Your task to perform on an android device: toggle notifications settings in the gmail app Image 0: 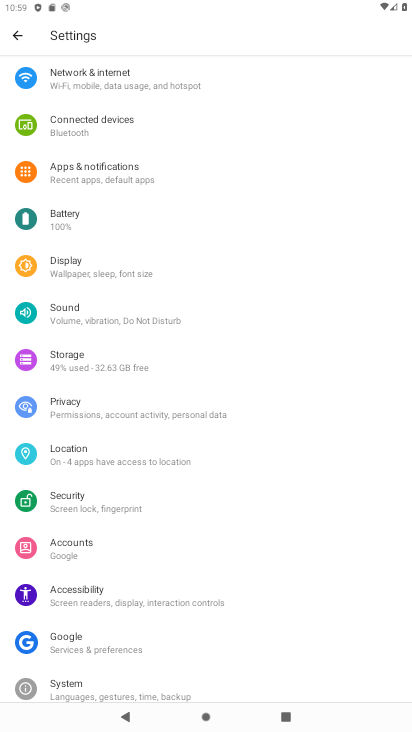
Step 0: press back button
Your task to perform on an android device: toggle notifications settings in the gmail app Image 1: 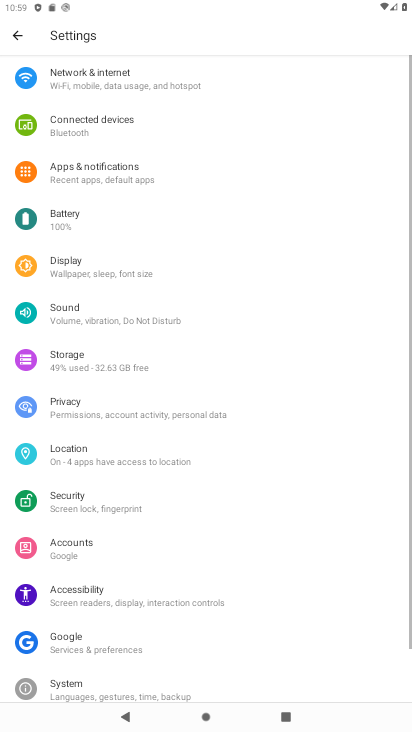
Step 1: press home button
Your task to perform on an android device: toggle notifications settings in the gmail app Image 2: 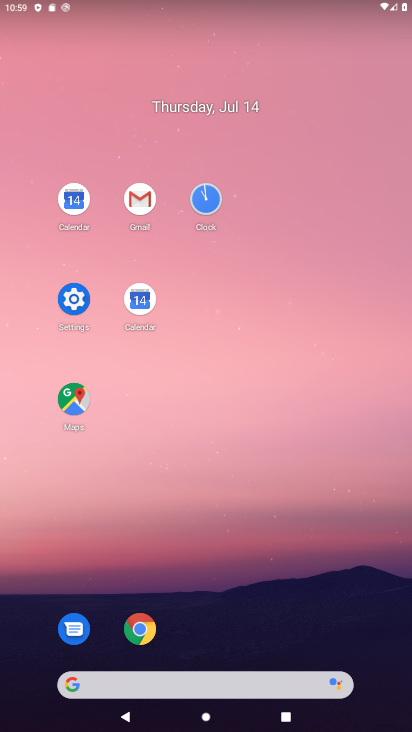
Step 2: click (147, 205)
Your task to perform on an android device: toggle notifications settings in the gmail app Image 3: 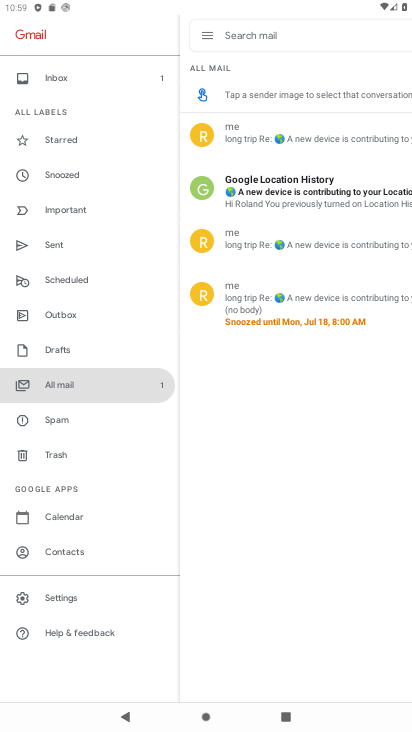
Step 3: click (103, 590)
Your task to perform on an android device: toggle notifications settings in the gmail app Image 4: 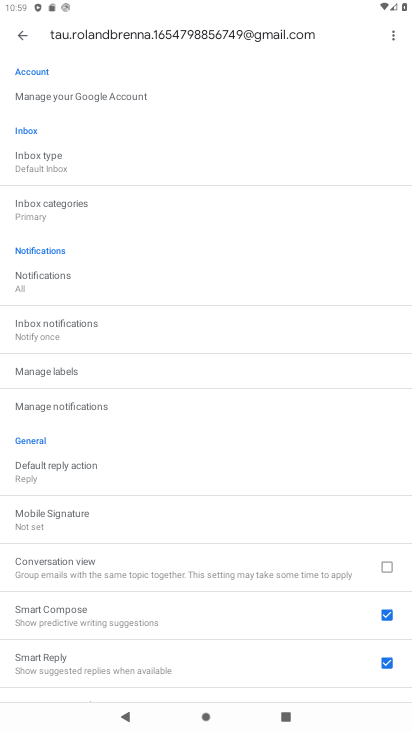
Step 4: click (160, 288)
Your task to perform on an android device: toggle notifications settings in the gmail app Image 5: 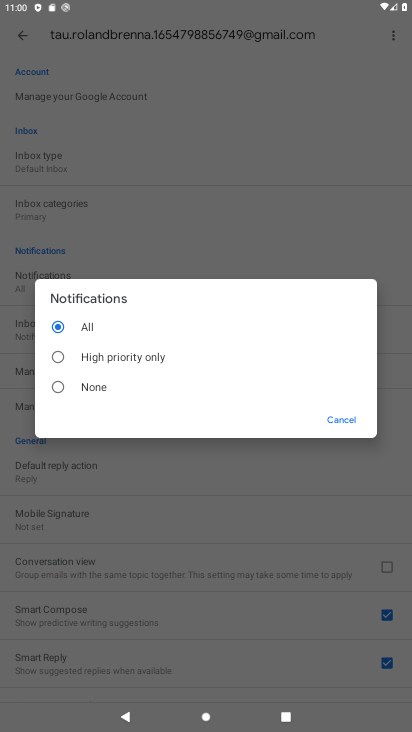
Step 5: click (145, 354)
Your task to perform on an android device: toggle notifications settings in the gmail app Image 6: 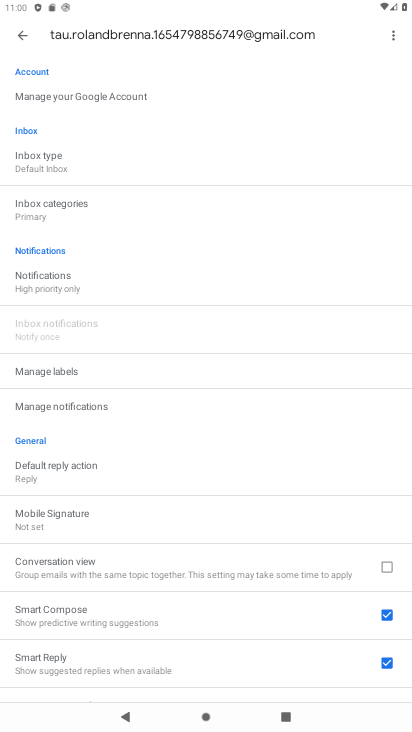
Step 6: task complete